Your task to perform on an android device: Clear all items from cart on ebay. Add "alienware area 51" to the cart on ebay, then select checkout. Image 0: 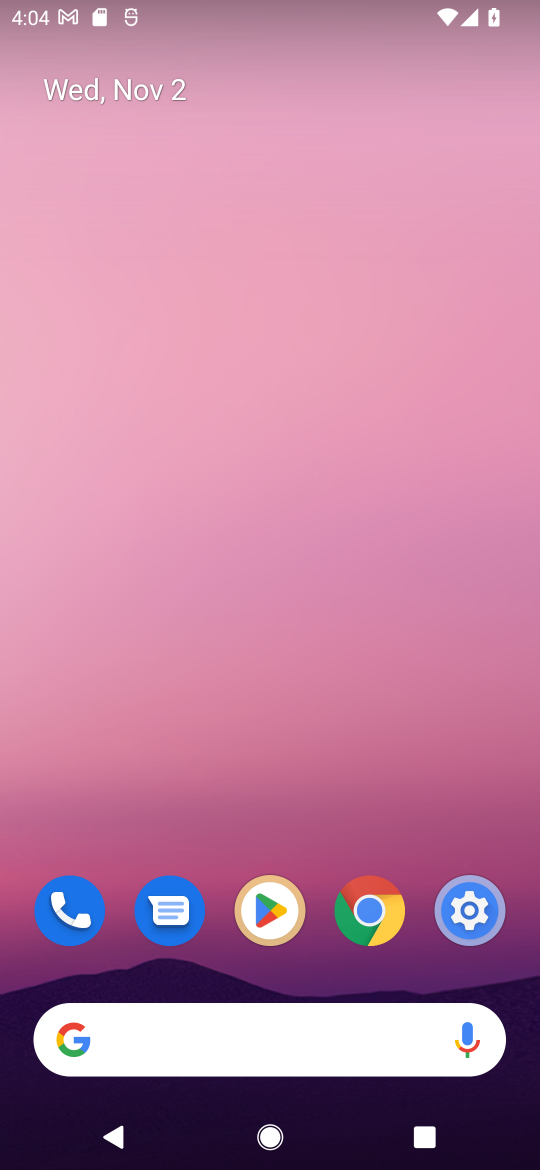
Step 0: click (133, 1028)
Your task to perform on an android device: Clear all items from cart on ebay. Add "alienware area 51" to the cart on ebay, then select checkout. Image 1: 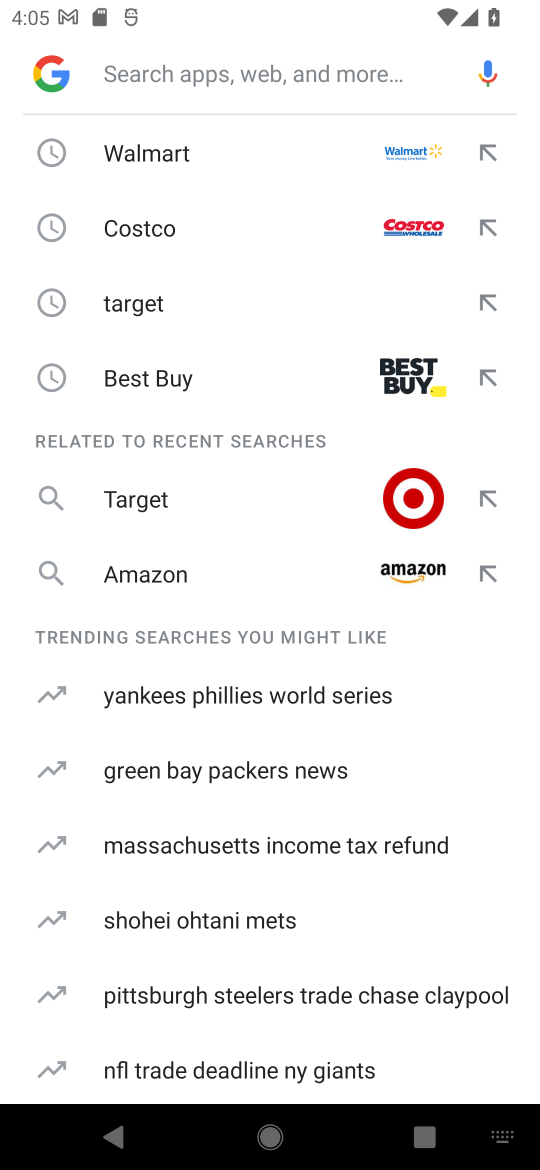
Step 1: type "ebay"
Your task to perform on an android device: Clear all items from cart on ebay. Add "alienware area 51" to the cart on ebay, then select checkout. Image 2: 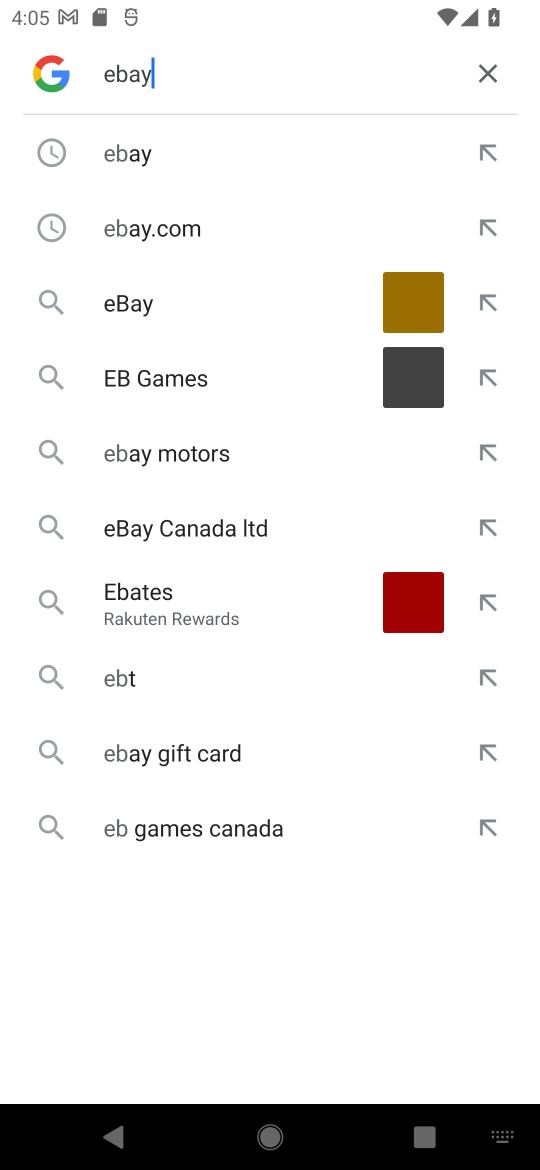
Step 2: type ""
Your task to perform on an android device: Clear all items from cart on ebay. Add "alienware area 51" to the cart on ebay, then select checkout. Image 3: 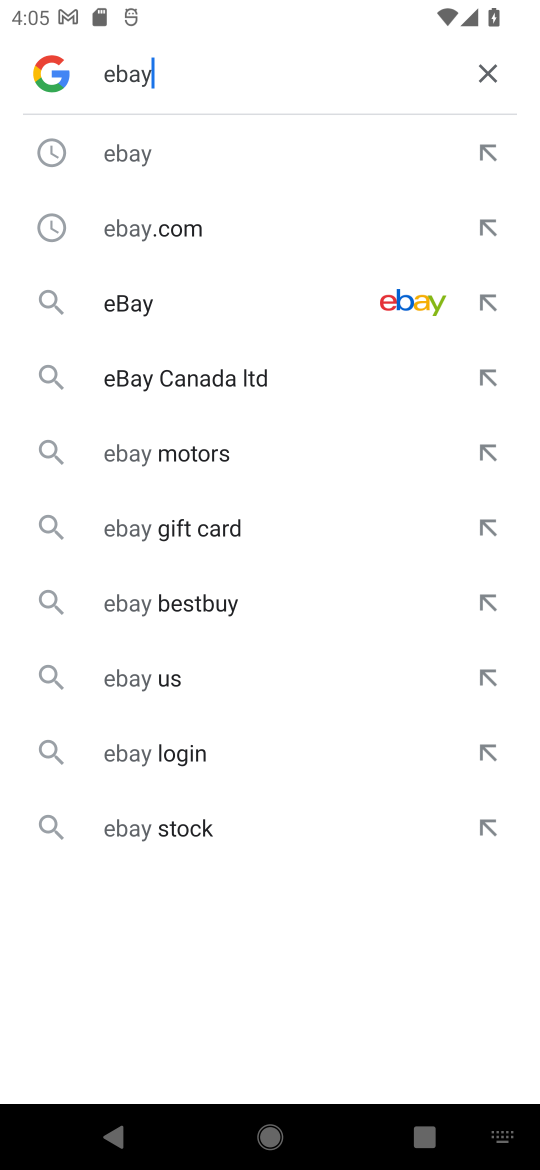
Step 3: press enter
Your task to perform on an android device: Clear all items from cart on ebay. Add "alienware area 51" to the cart on ebay, then select checkout. Image 4: 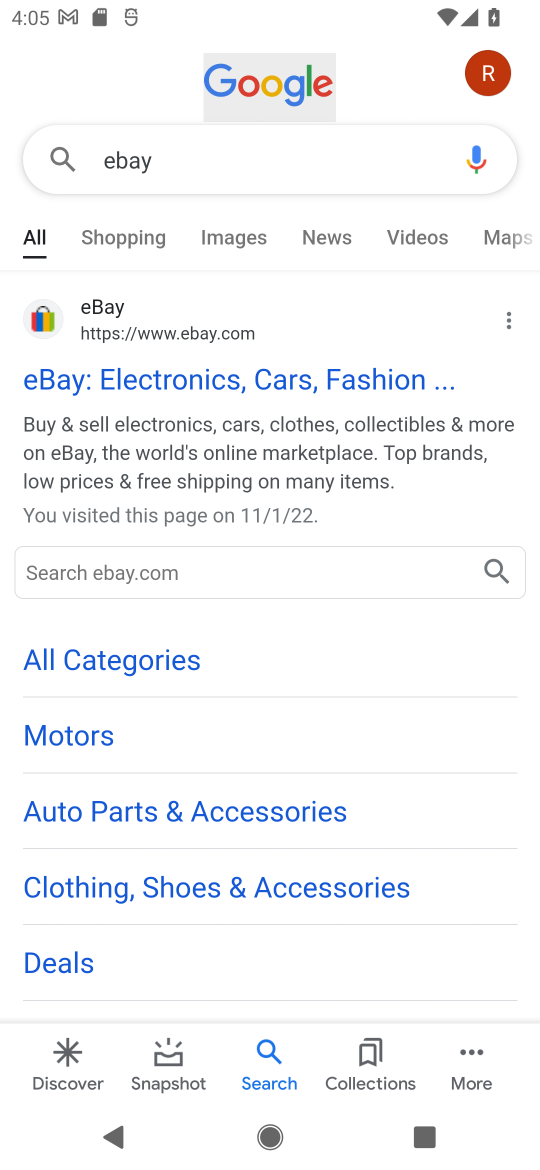
Step 4: click (143, 387)
Your task to perform on an android device: Clear all items from cart on ebay. Add "alienware area 51" to the cart on ebay, then select checkout. Image 5: 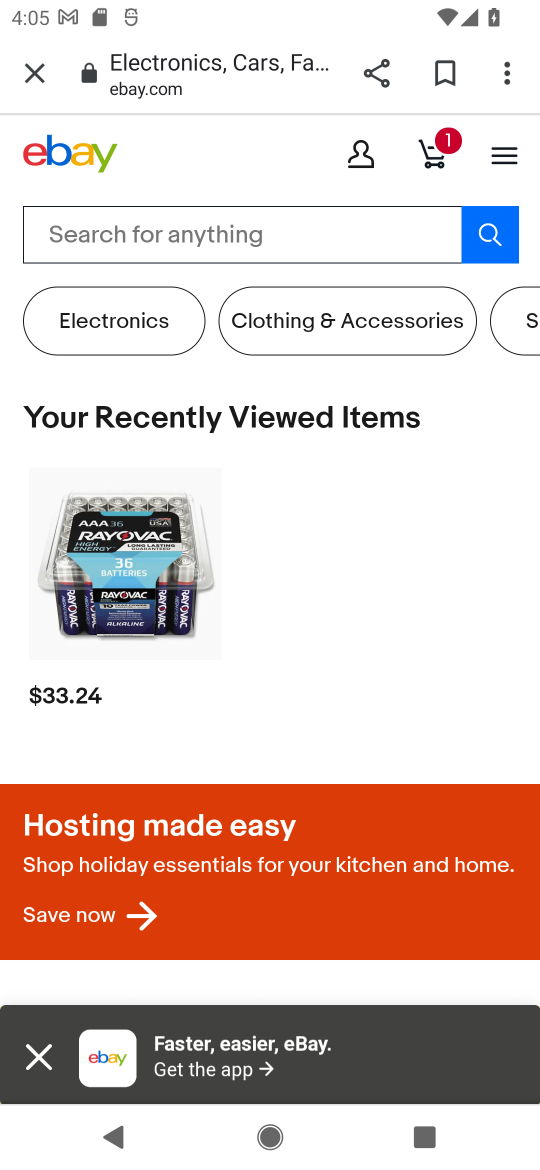
Step 5: drag from (329, 686) to (341, 323)
Your task to perform on an android device: Clear all items from cart on ebay. Add "alienware area 51" to the cart on ebay, then select checkout. Image 6: 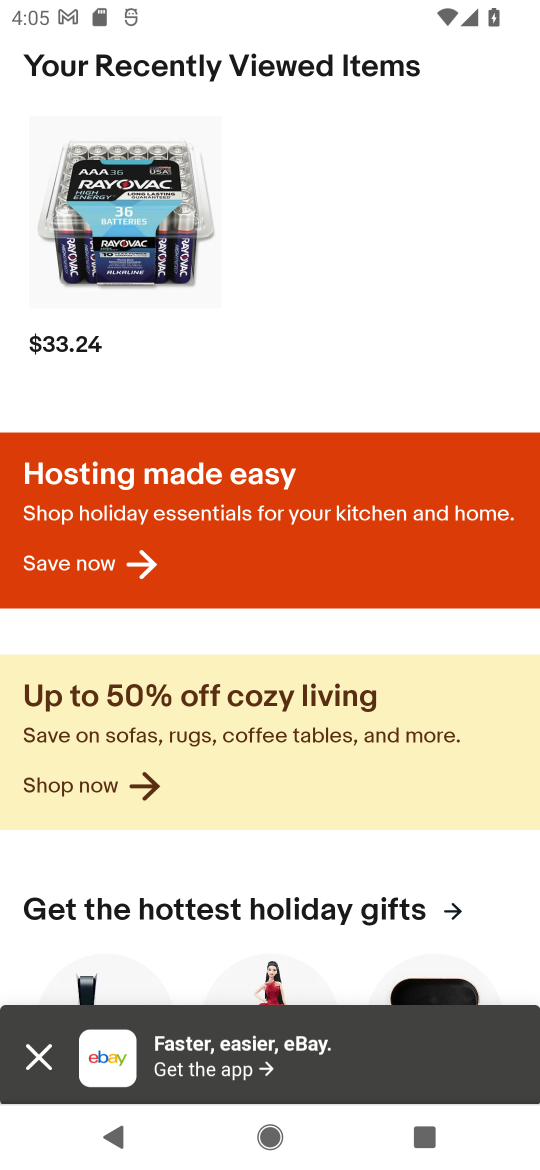
Step 6: drag from (266, 846) to (266, 218)
Your task to perform on an android device: Clear all items from cart on ebay. Add "alienware area 51" to the cart on ebay, then select checkout. Image 7: 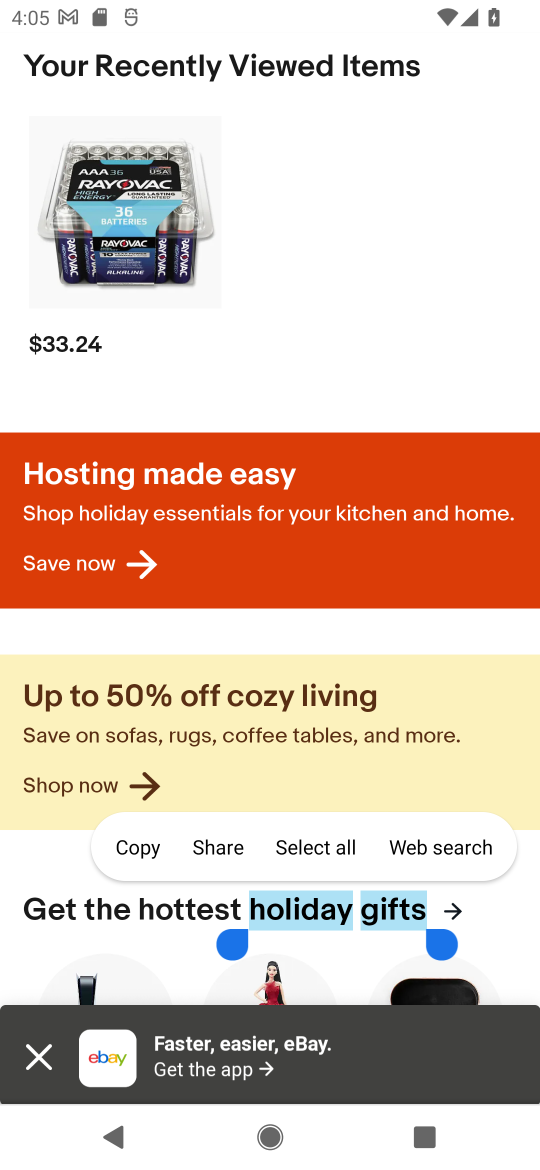
Step 7: click (400, 328)
Your task to perform on an android device: Clear all items from cart on ebay. Add "alienware area 51" to the cart on ebay, then select checkout. Image 8: 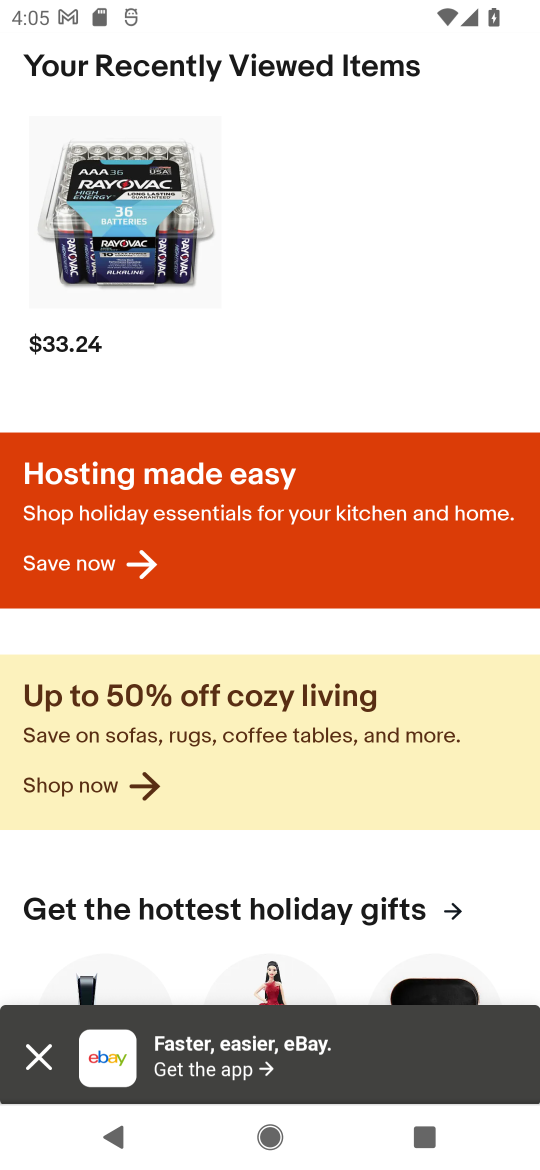
Step 8: task complete